Your task to perform on an android device: turn off notifications settings in the gmail app Image 0: 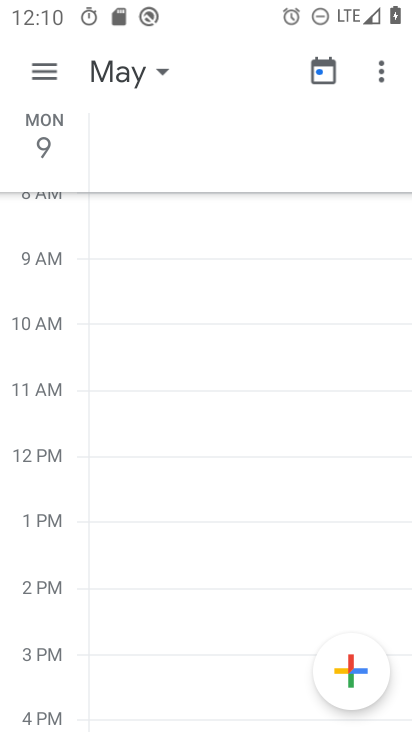
Step 0: press home button
Your task to perform on an android device: turn off notifications settings in the gmail app Image 1: 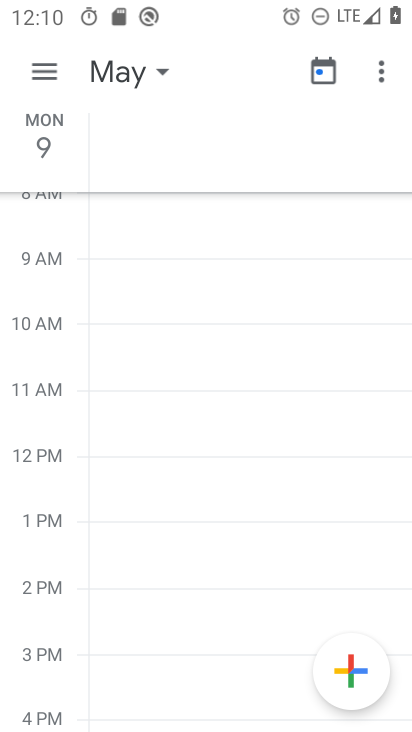
Step 1: press home button
Your task to perform on an android device: turn off notifications settings in the gmail app Image 2: 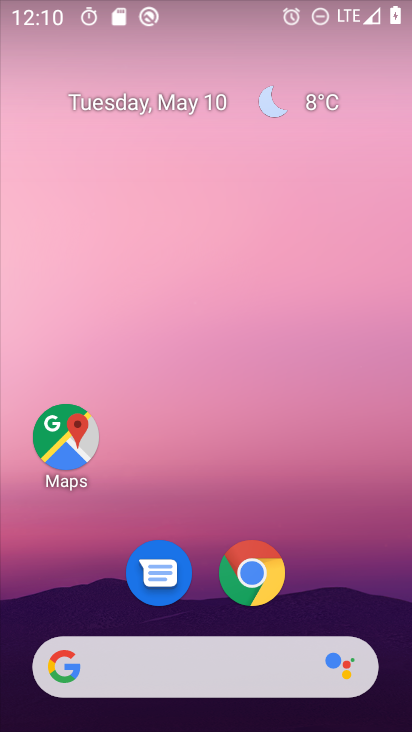
Step 2: drag from (324, 560) to (273, 50)
Your task to perform on an android device: turn off notifications settings in the gmail app Image 3: 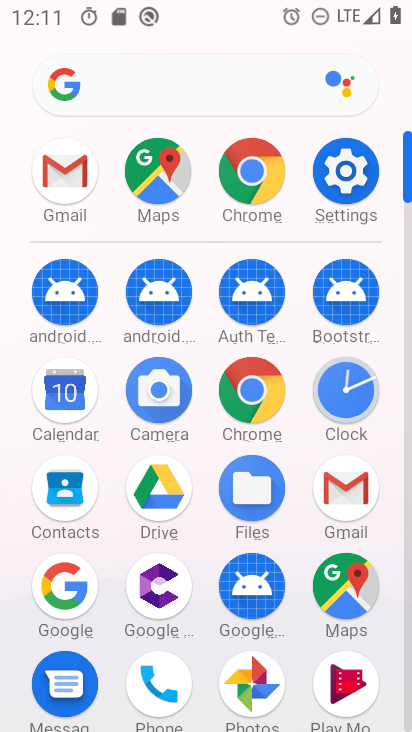
Step 3: click (347, 500)
Your task to perform on an android device: turn off notifications settings in the gmail app Image 4: 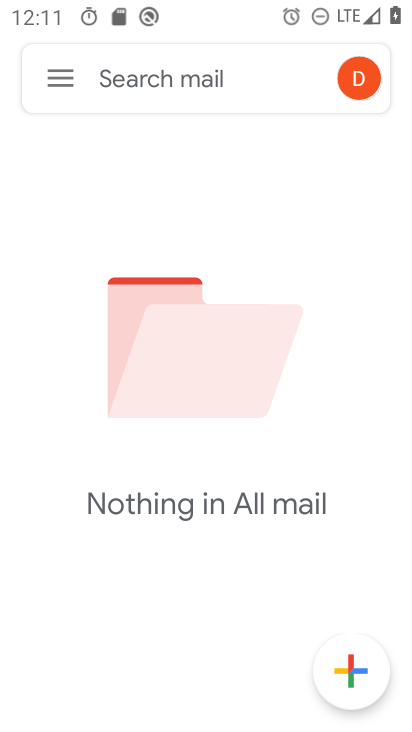
Step 4: click (63, 84)
Your task to perform on an android device: turn off notifications settings in the gmail app Image 5: 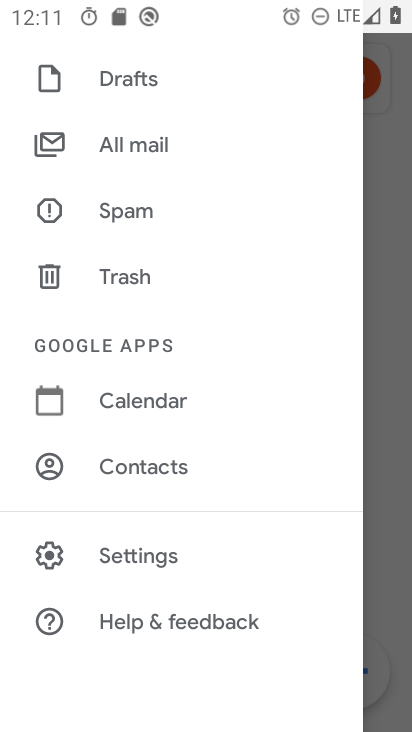
Step 5: click (213, 562)
Your task to perform on an android device: turn off notifications settings in the gmail app Image 6: 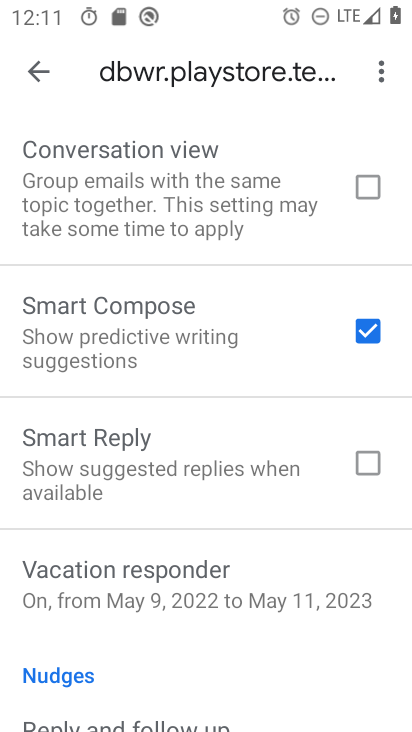
Step 6: drag from (224, 221) to (269, 664)
Your task to perform on an android device: turn off notifications settings in the gmail app Image 7: 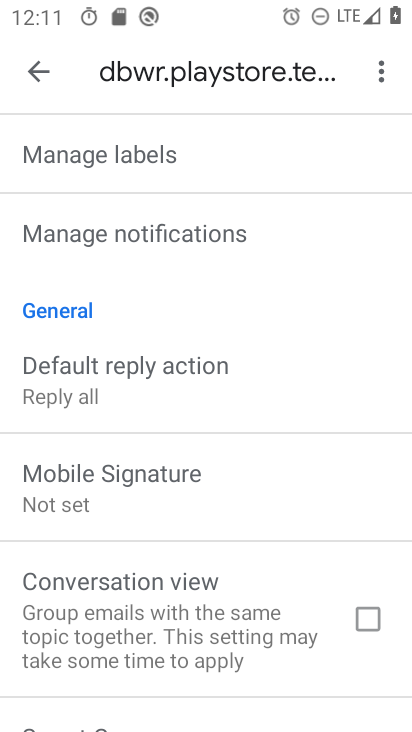
Step 7: drag from (237, 283) to (284, 681)
Your task to perform on an android device: turn off notifications settings in the gmail app Image 8: 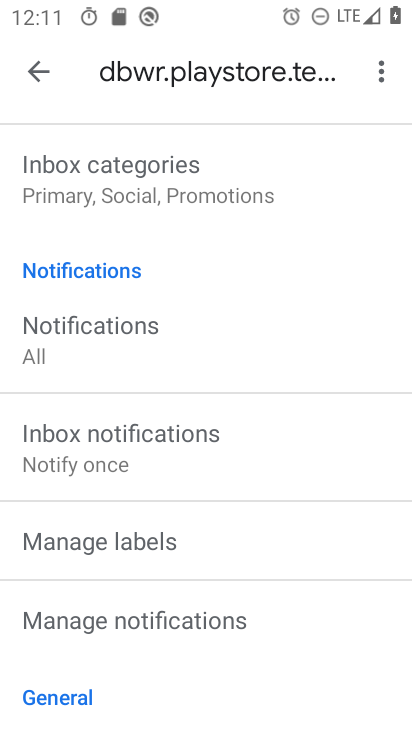
Step 8: drag from (249, 240) to (317, 599)
Your task to perform on an android device: turn off notifications settings in the gmail app Image 9: 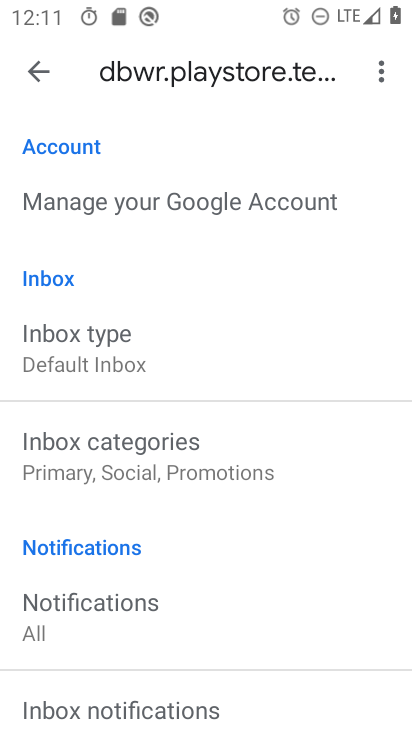
Step 9: drag from (256, 268) to (281, 578)
Your task to perform on an android device: turn off notifications settings in the gmail app Image 10: 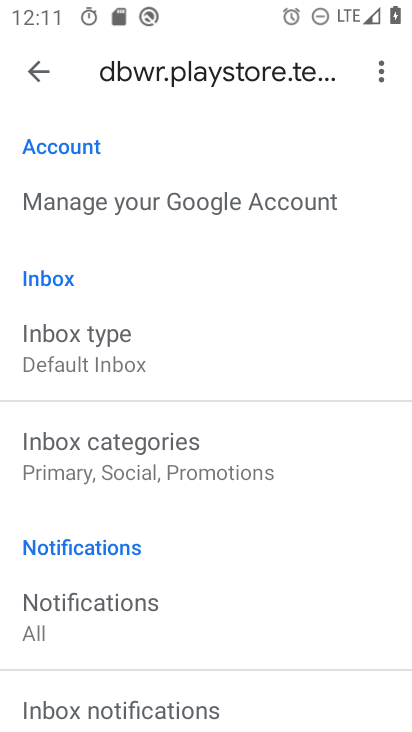
Step 10: drag from (215, 532) to (264, 247)
Your task to perform on an android device: turn off notifications settings in the gmail app Image 11: 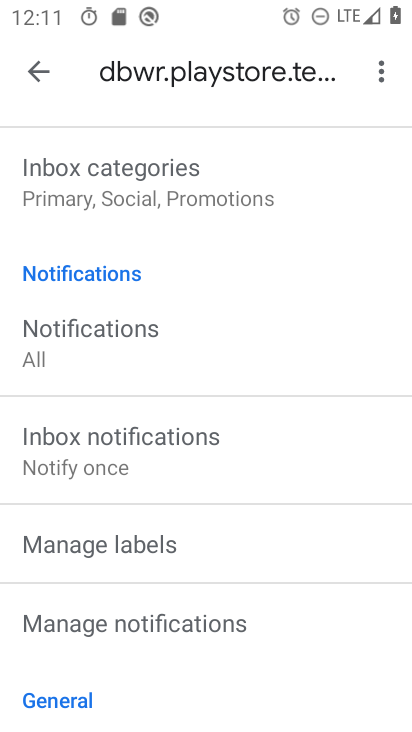
Step 11: click (132, 630)
Your task to perform on an android device: turn off notifications settings in the gmail app Image 12: 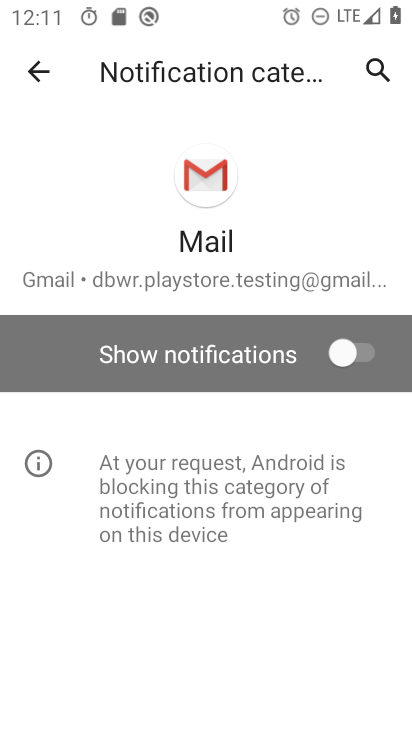
Step 12: task complete